Your task to perform on an android device: open a new tab in the chrome app Image 0: 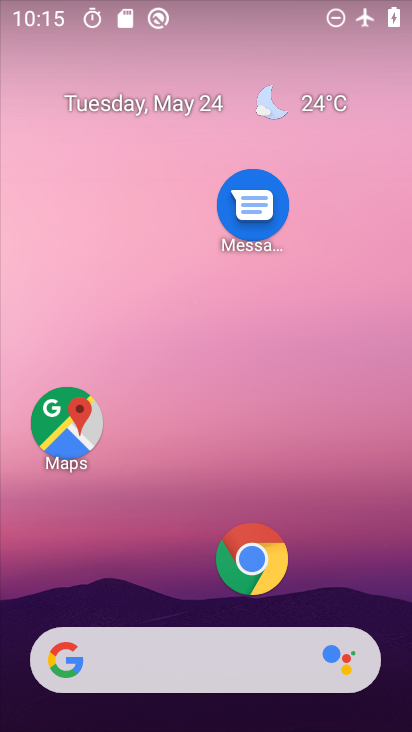
Step 0: click (229, 562)
Your task to perform on an android device: open a new tab in the chrome app Image 1: 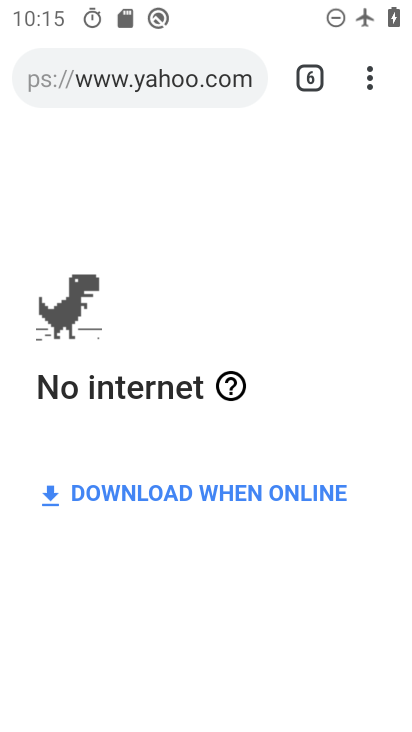
Step 1: click (318, 75)
Your task to perform on an android device: open a new tab in the chrome app Image 2: 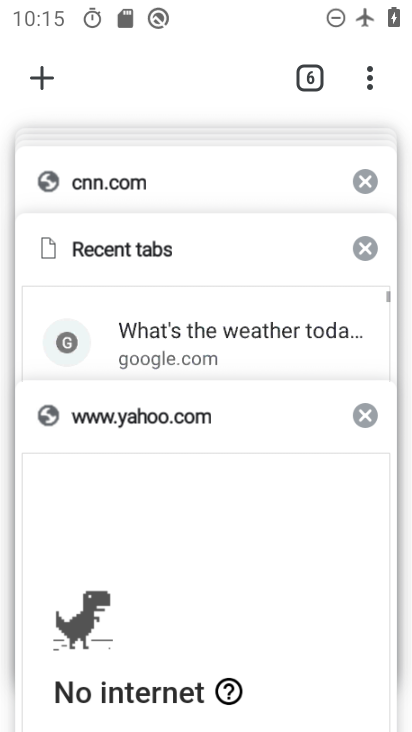
Step 2: click (33, 84)
Your task to perform on an android device: open a new tab in the chrome app Image 3: 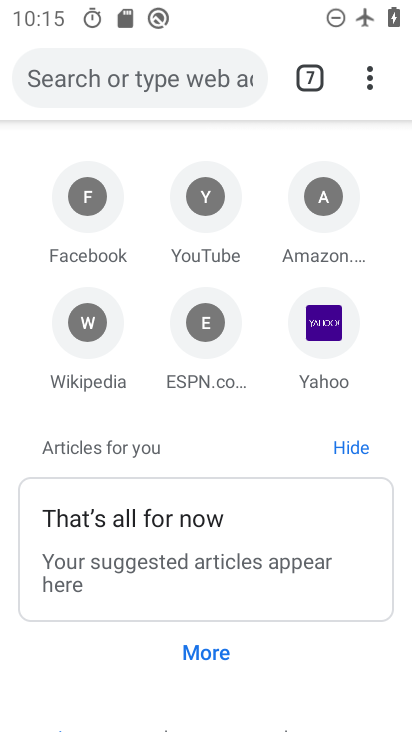
Step 3: task complete